Your task to perform on an android device: Open the calendar and show me this week's events? Image 0: 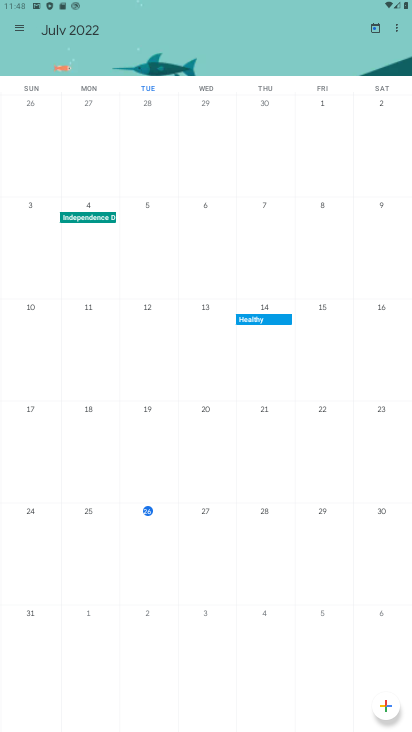
Step 0: click (23, 29)
Your task to perform on an android device: Open the calendar and show me this week's events? Image 1: 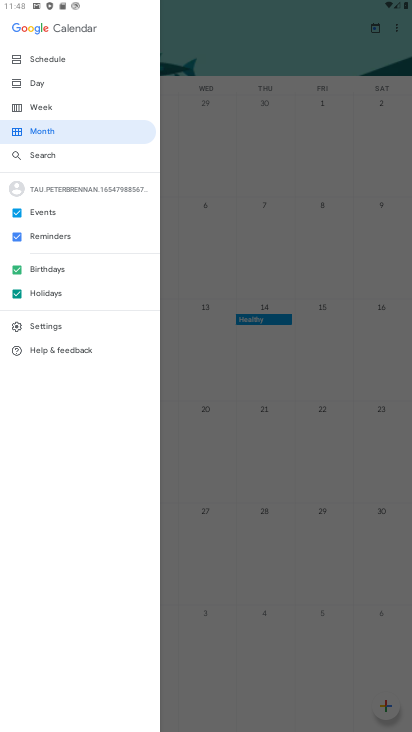
Step 1: click (41, 101)
Your task to perform on an android device: Open the calendar and show me this week's events? Image 2: 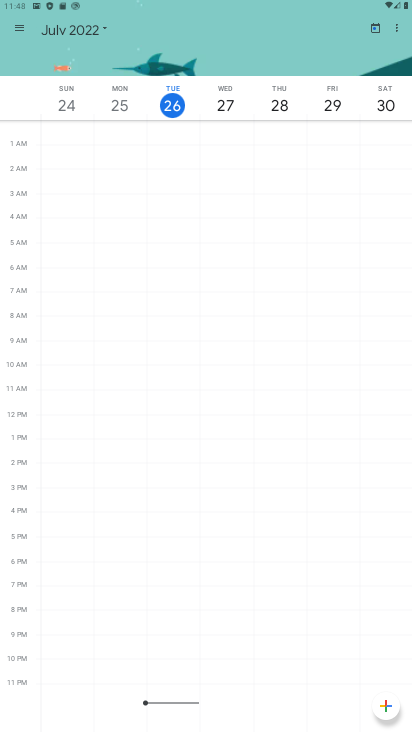
Step 2: task complete